Your task to perform on an android device: turn vacation reply on in the gmail app Image 0: 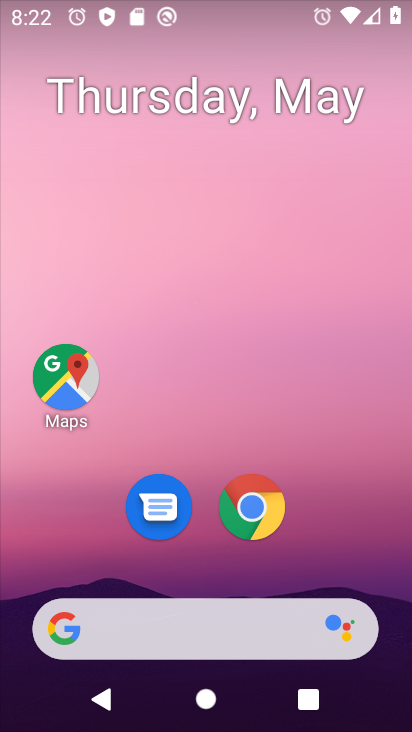
Step 0: drag from (200, 491) to (291, 12)
Your task to perform on an android device: turn vacation reply on in the gmail app Image 1: 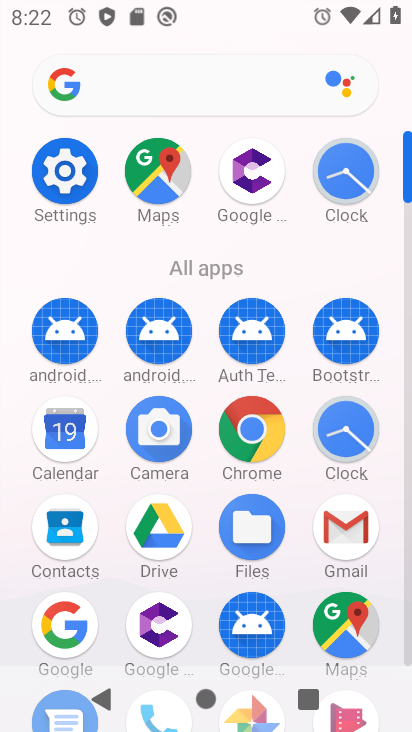
Step 1: click (333, 514)
Your task to perform on an android device: turn vacation reply on in the gmail app Image 2: 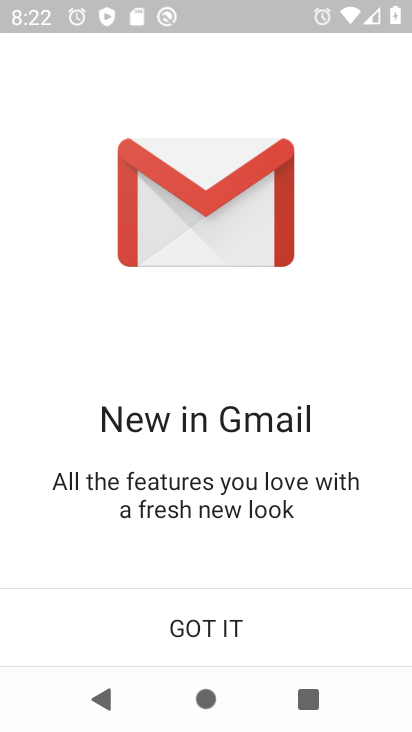
Step 2: click (202, 627)
Your task to perform on an android device: turn vacation reply on in the gmail app Image 3: 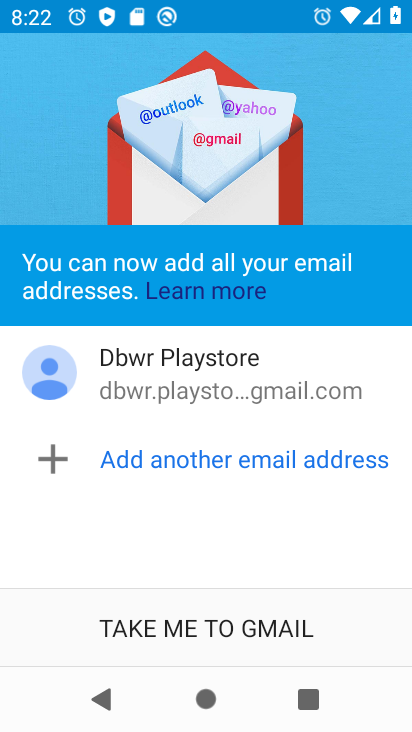
Step 3: click (202, 627)
Your task to perform on an android device: turn vacation reply on in the gmail app Image 4: 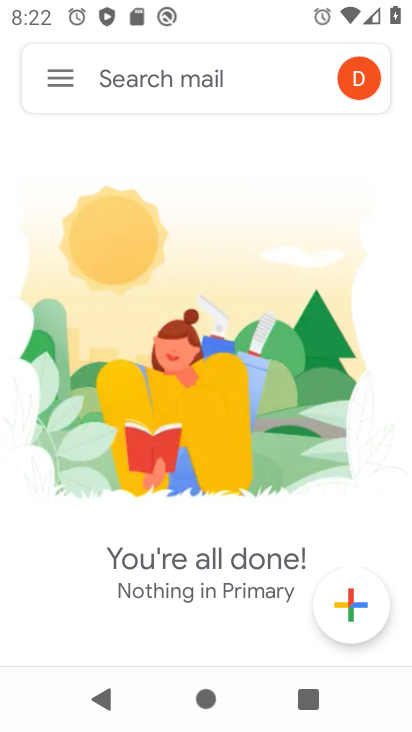
Step 4: click (68, 79)
Your task to perform on an android device: turn vacation reply on in the gmail app Image 5: 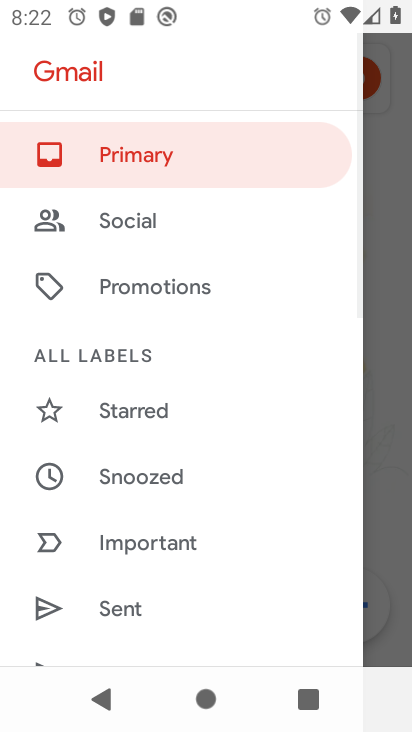
Step 5: drag from (153, 589) to (212, 45)
Your task to perform on an android device: turn vacation reply on in the gmail app Image 6: 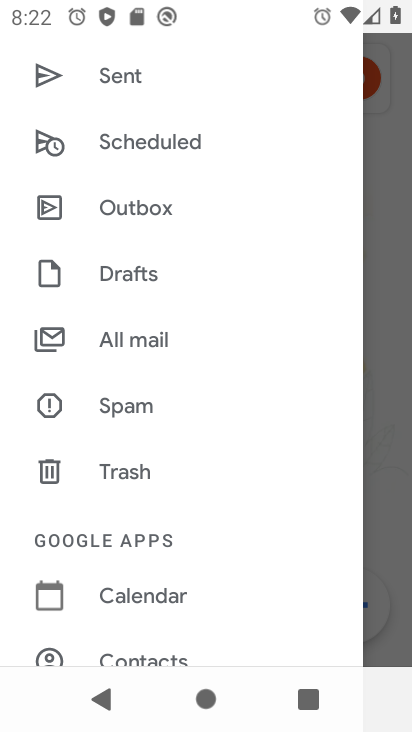
Step 6: drag from (152, 576) to (188, 6)
Your task to perform on an android device: turn vacation reply on in the gmail app Image 7: 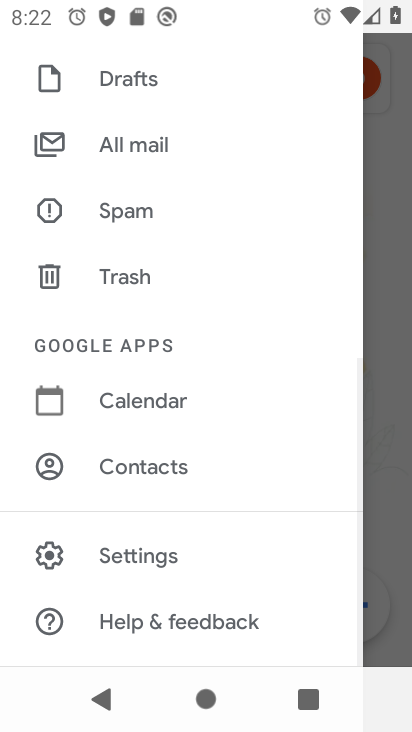
Step 7: click (134, 555)
Your task to perform on an android device: turn vacation reply on in the gmail app Image 8: 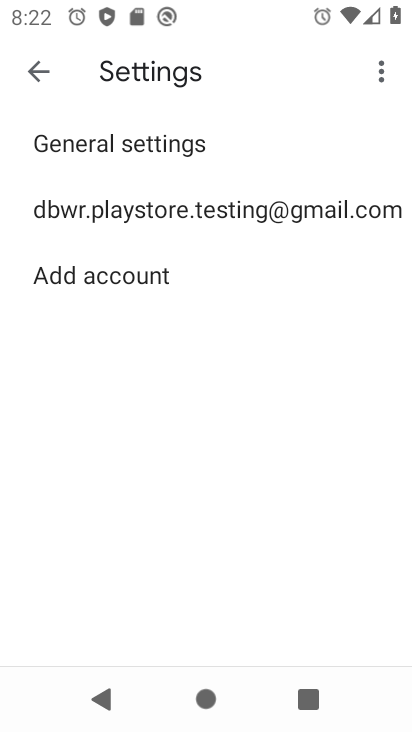
Step 8: click (148, 211)
Your task to perform on an android device: turn vacation reply on in the gmail app Image 9: 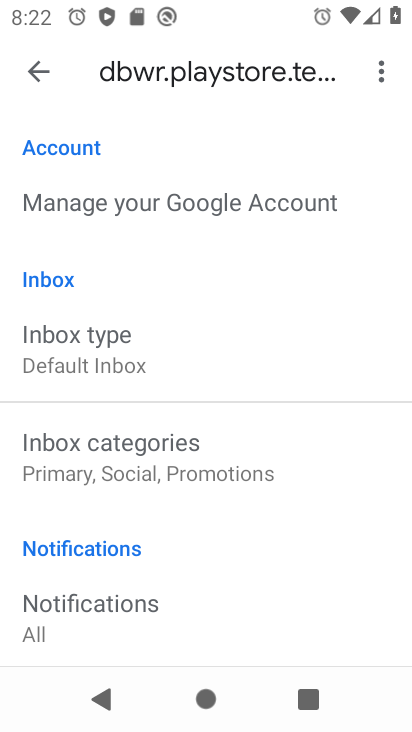
Step 9: drag from (176, 497) to (229, 93)
Your task to perform on an android device: turn vacation reply on in the gmail app Image 10: 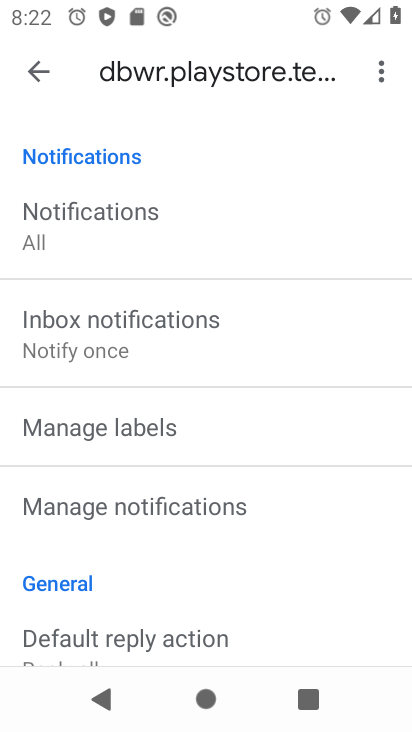
Step 10: drag from (184, 532) to (229, 166)
Your task to perform on an android device: turn vacation reply on in the gmail app Image 11: 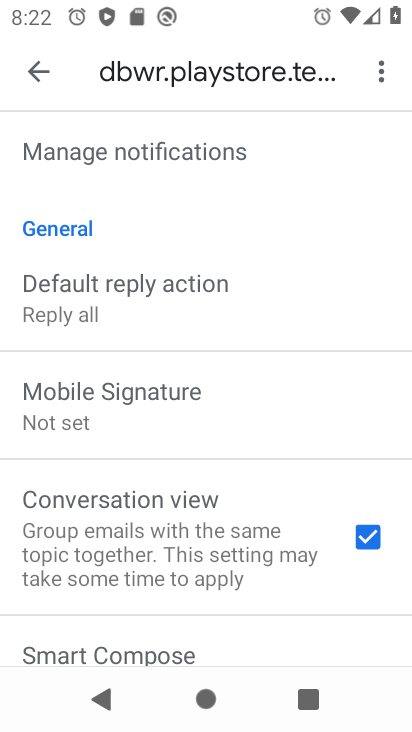
Step 11: drag from (168, 583) to (231, 177)
Your task to perform on an android device: turn vacation reply on in the gmail app Image 12: 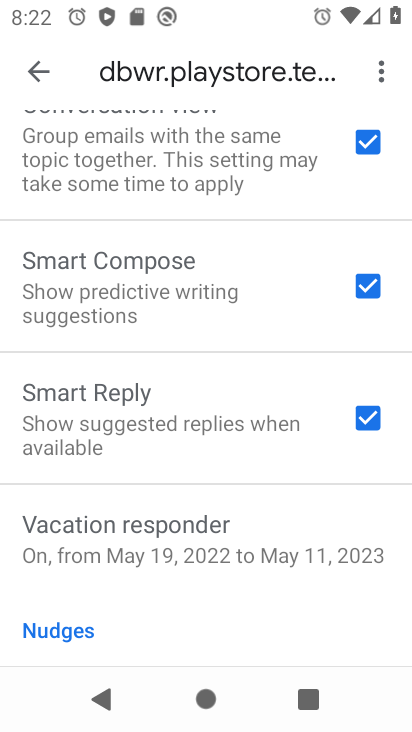
Step 12: click (172, 548)
Your task to perform on an android device: turn vacation reply on in the gmail app Image 13: 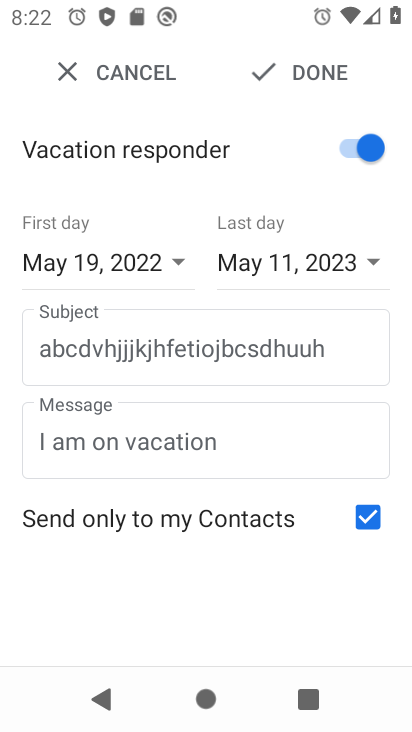
Step 13: task complete